Your task to perform on an android device: clear history in the chrome app Image 0: 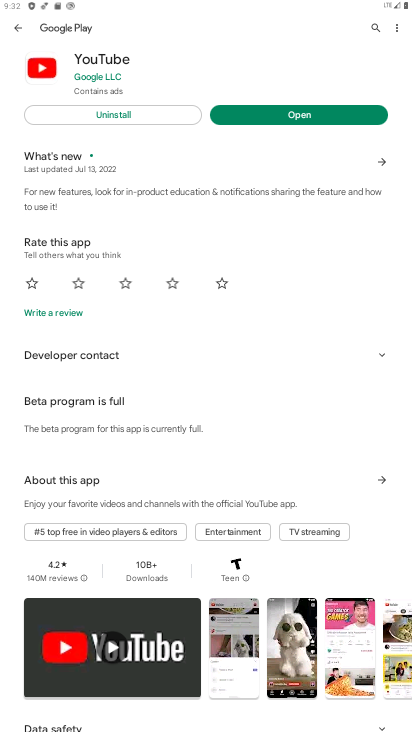
Step 0: press home button
Your task to perform on an android device: clear history in the chrome app Image 1: 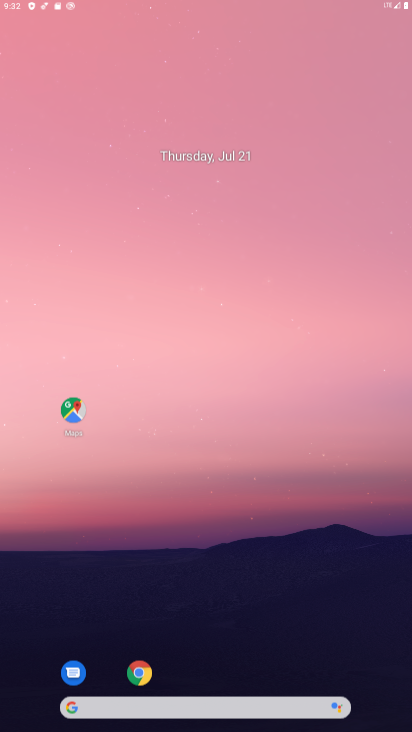
Step 1: drag from (192, 614) to (220, 316)
Your task to perform on an android device: clear history in the chrome app Image 2: 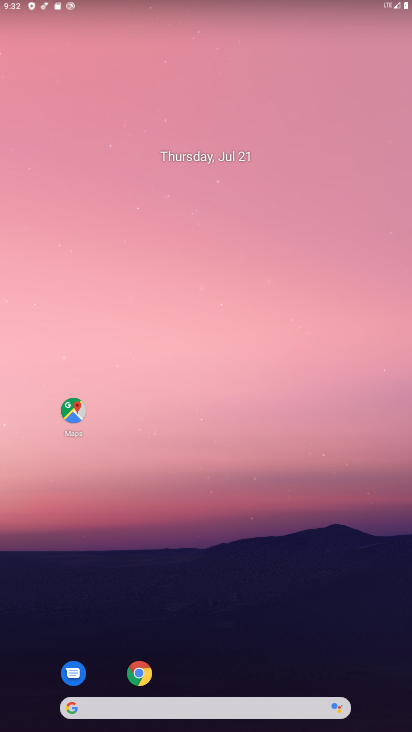
Step 2: drag from (206, 674) to (197, 181)
Your task to perform on an android device: clear history in the chrome app Image 3: 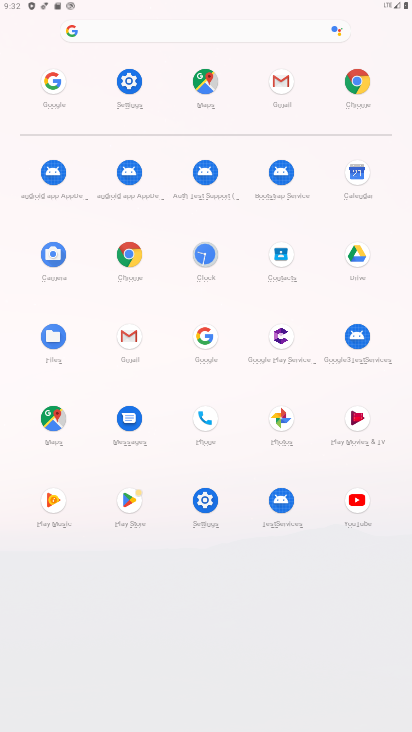
Step 3: click (124, 254)
Your task to perform on an android device: clear history in the chrome app Image 4: 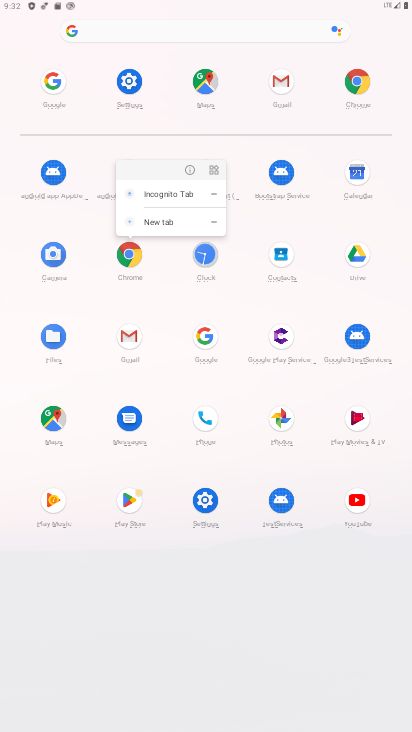
Step 4: click (189, 171)
Your task to perform on an android device: clear history in the chrome app Image 5: 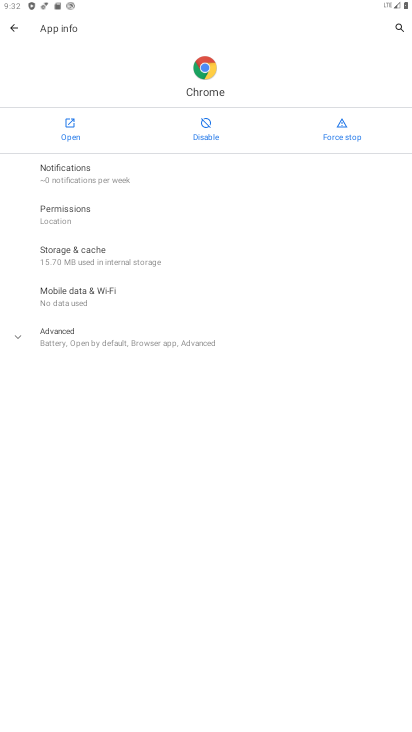
Step 5: click (59, 126)
Your task to perform on an android device: clear history in the chrome app Image 6: 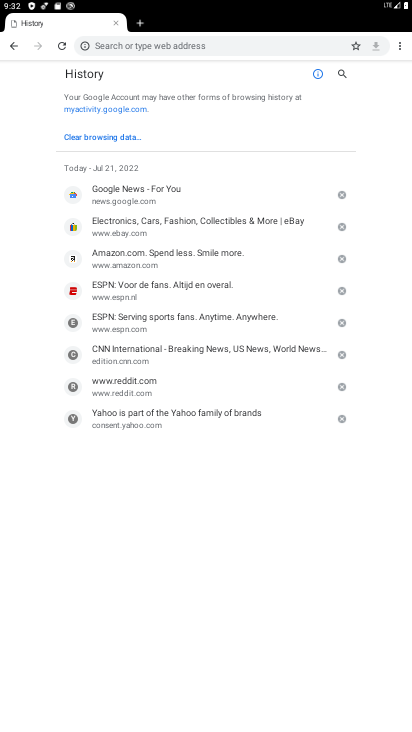
Step 6: click (88, 134)
Your task to perform on an android device: clear history in the chrome app Image 7: 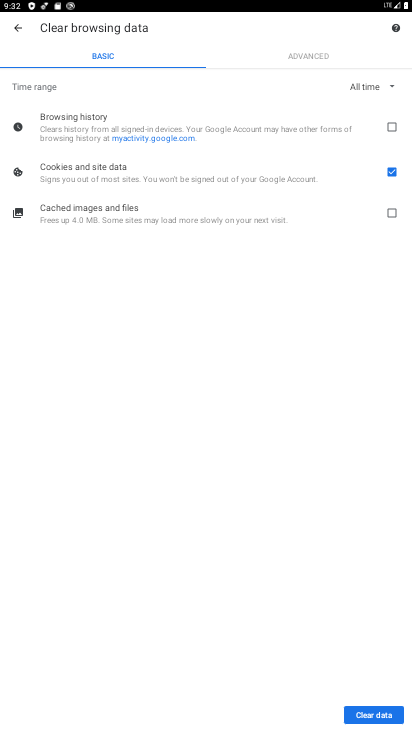
Step 7: click (387, 122)
Your task to perform on an android device: clear history in the chrome app Image 8: 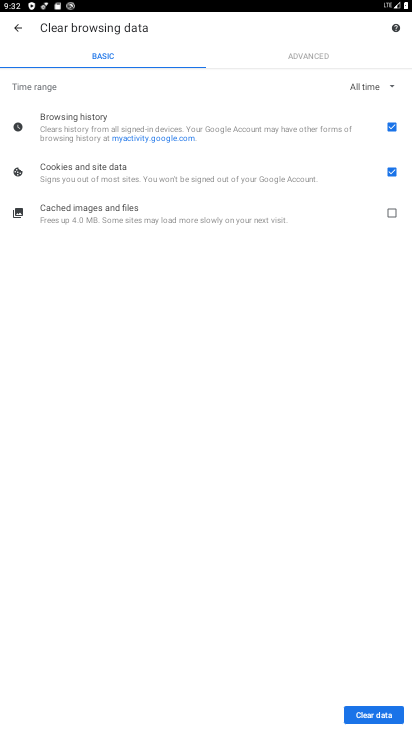
Step 8: click (387, 218)
Your task to perform on an android device: clear history in the chrome app Image 9: 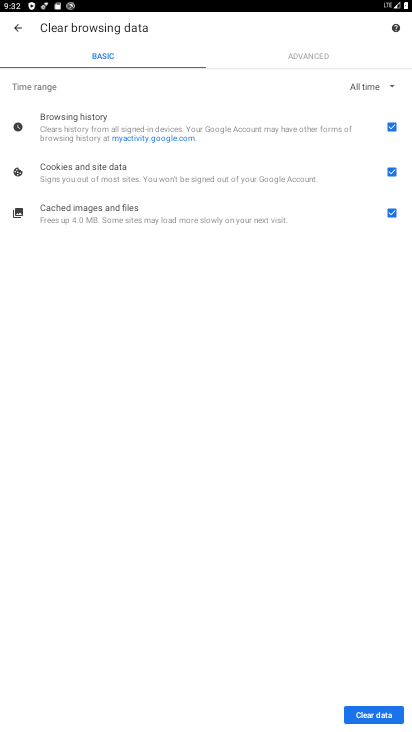
Step 9: click (375, 700)
Your task to perform on an android device: clear history in the chrome app Image 10: 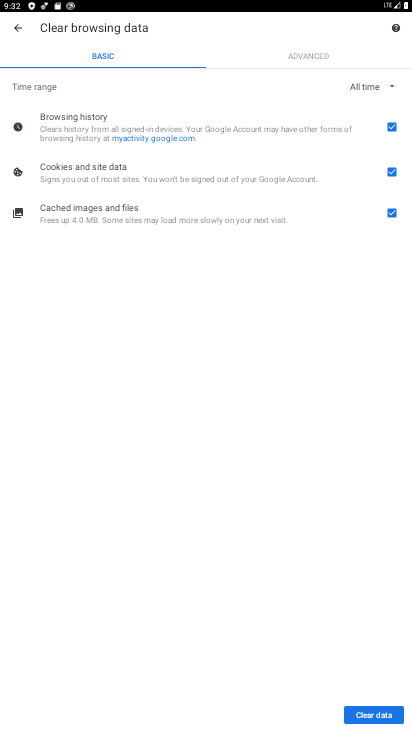
Step 10: click (366, 711)
Your task to perform on an android device: clear history in the chrome app Image 11: 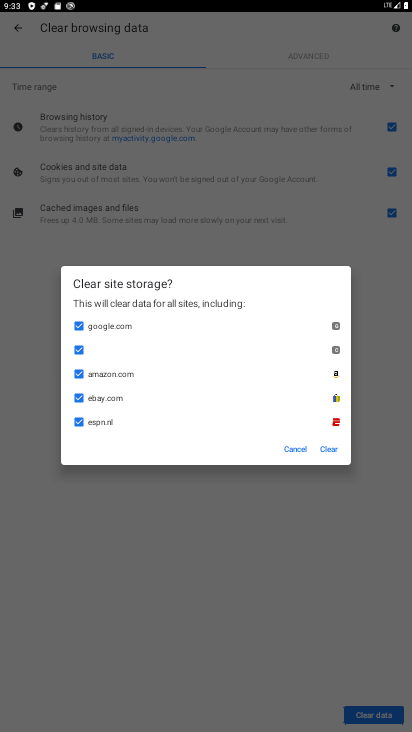
Step 11: click (325, 448)
Your task to perform on an android device: clear history in the chrome app Image 12: 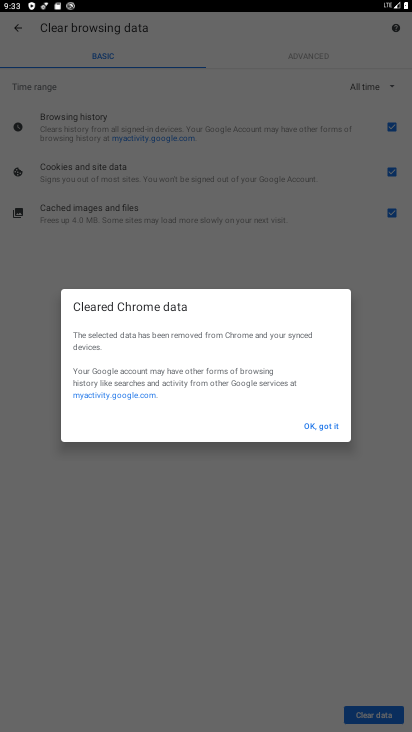
Step 12: task complete